Your task to perform on an android device: open sync settings in chrome Image 0: 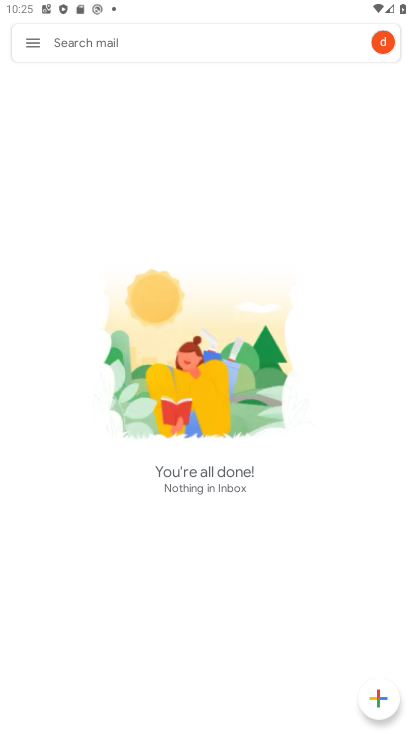
Step 0: press home button
Your task to perform on an android device: open sync settings in chrome Image 1: 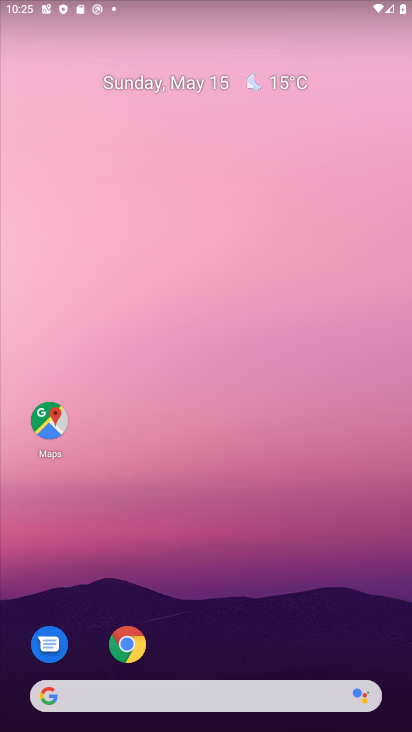
Step 1: click (125, 644)
Your task to perform on an android device: open sync settings in chrome Image 2: 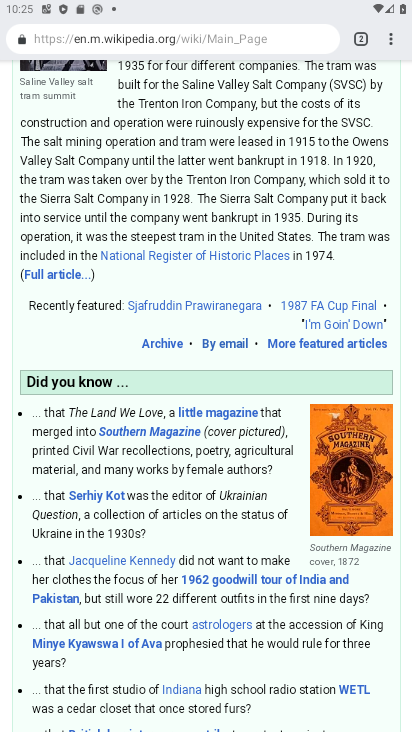
Step 2: click (387, 35)
Your task to perform on an android device: open sync settings in chrome Image 3: 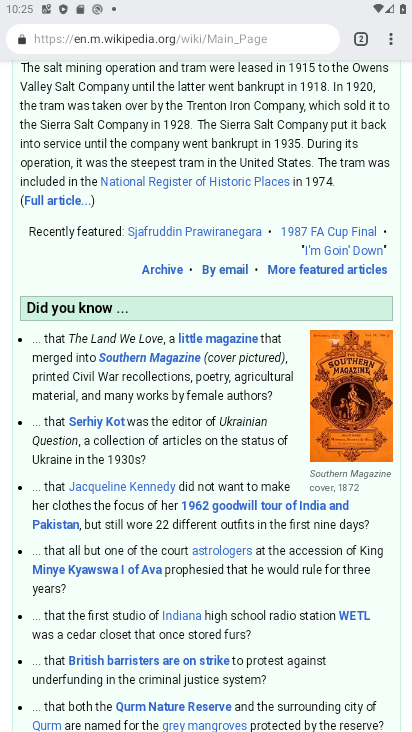
Step 3: click (393, 38)
Your task to perform on an android device: open sync settings in chrome Image 4: 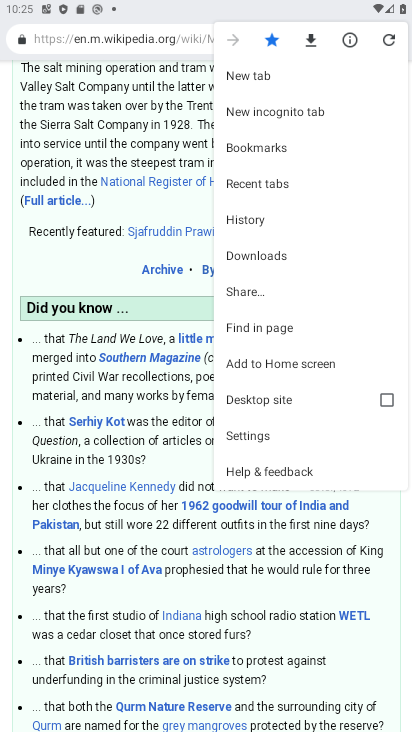
Step 4: click (249, 440)
Your task to perform on an android device: open sync settings in chrome Image 5: 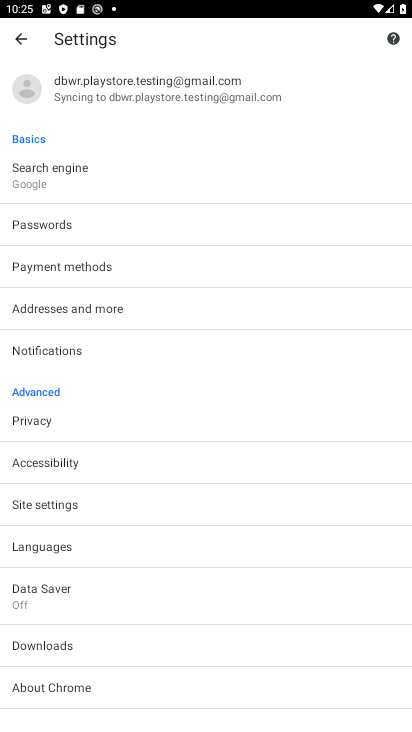
Step 5: click (97, 86)
Your task to perform on an android device: open sync settings in chrome Image 6: 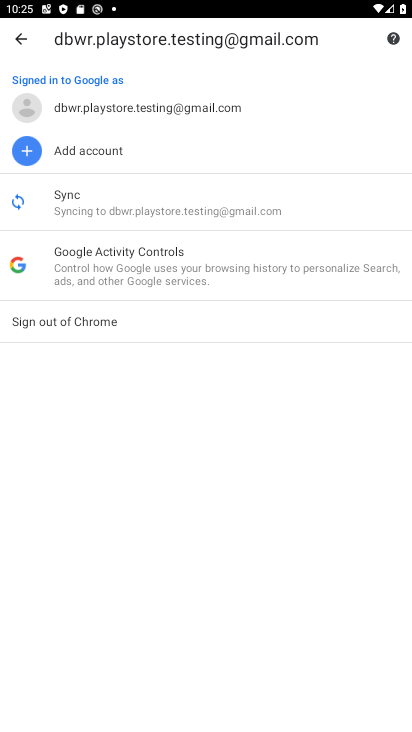
Step 6: click (89, 198)
Your task to perform on an android device: open sync settings in chrome Image 7: 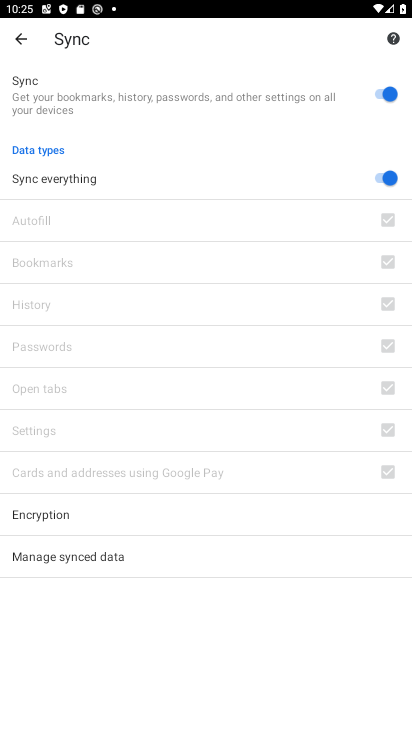
Step 7: task complete